Your task to perform on an android device: turn on javascript in the chrome app Image 0: 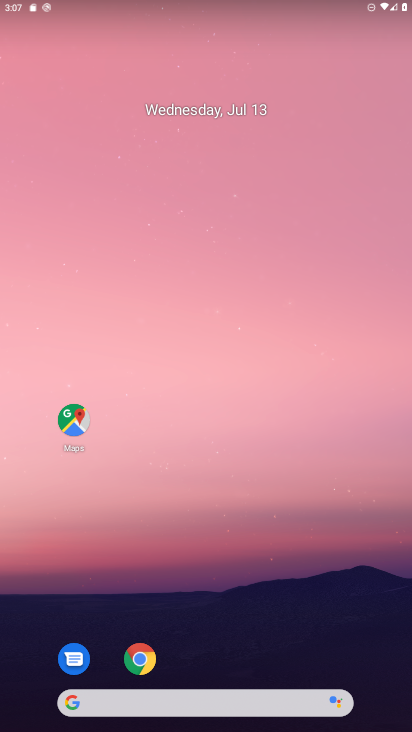
Step 0: click (133, 657)
Your task to perform on an android device: turn on javascript in the chrome app Image 1: 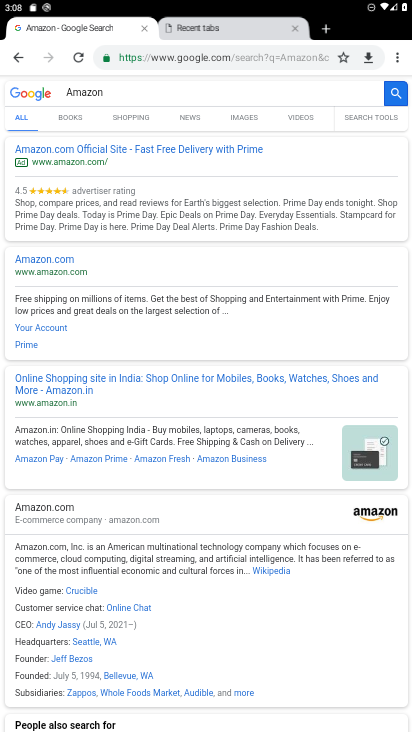
Step 1: click (395, 58)
Your task to perform on an android device: turn on javascript in the chrome app Image 2: 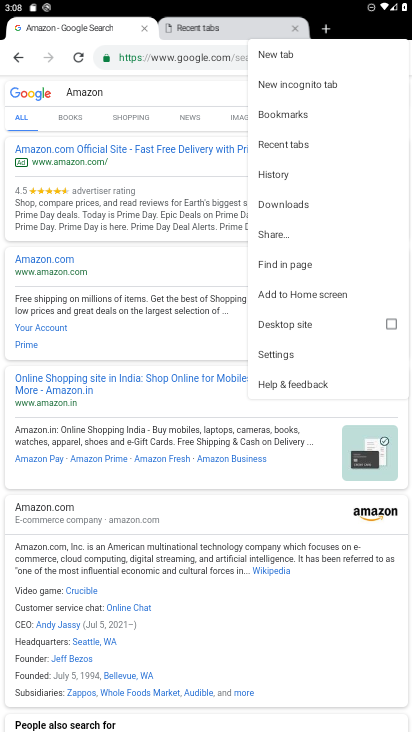
Step 2: click (270, 354)
Your task to perform on an android device: turn on javascript in the chrome app Image 3: 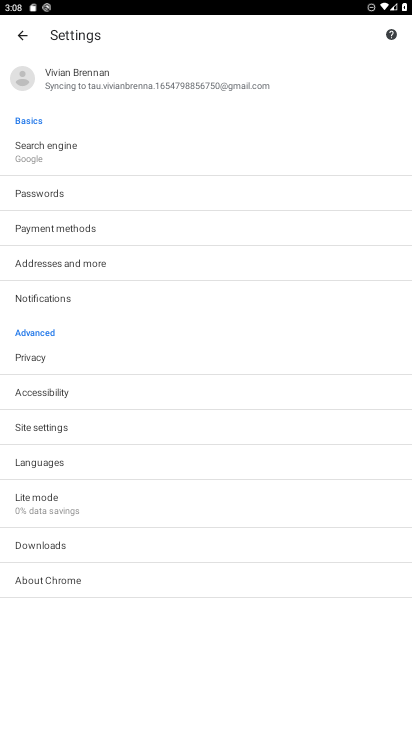
Step 3: click (39, 423)
Your task to perform on an android device: turn on javascript in the chrome app Image 4: 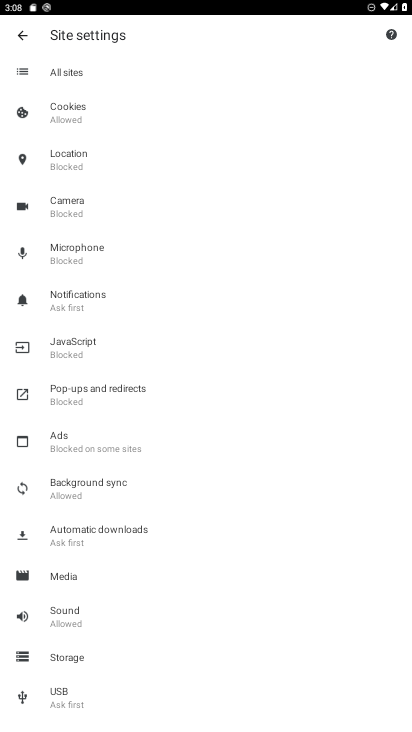
Step 4: click (64, 342)
Your task to perform on an android device: turn on javascript in the chrome app Image 5: 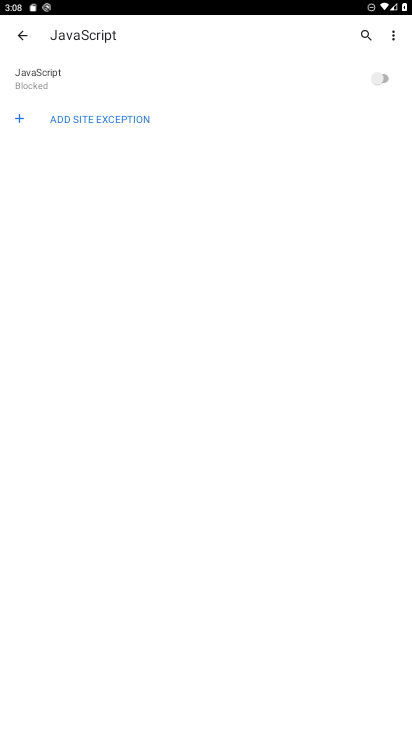
Step 5: click (384, 80)
Your task to perform on an android device: turn on javascript in the chrome app Image 6: 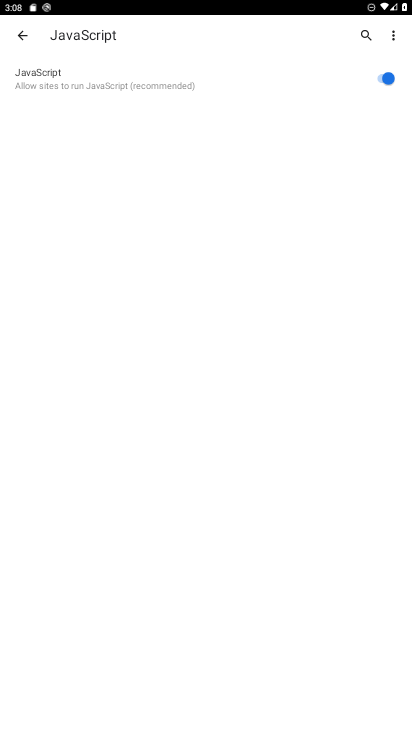
Step 6: task complete